Your task to perform on an android device: Show me popular videos on Youtube Image 0: 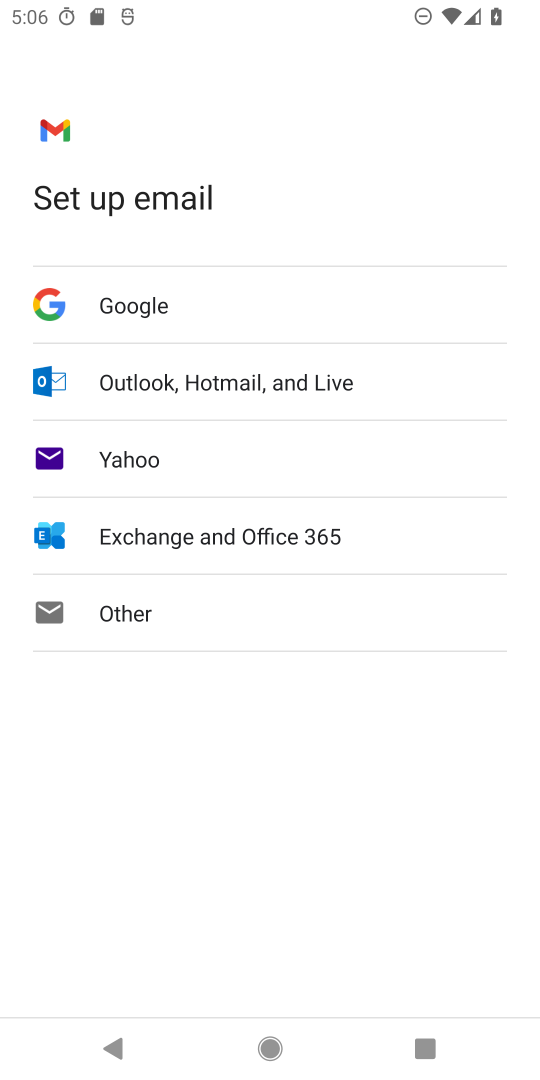
Step 0: press home button
Your task to perform on an android device: Show me popular videos on Youtube Image 1: 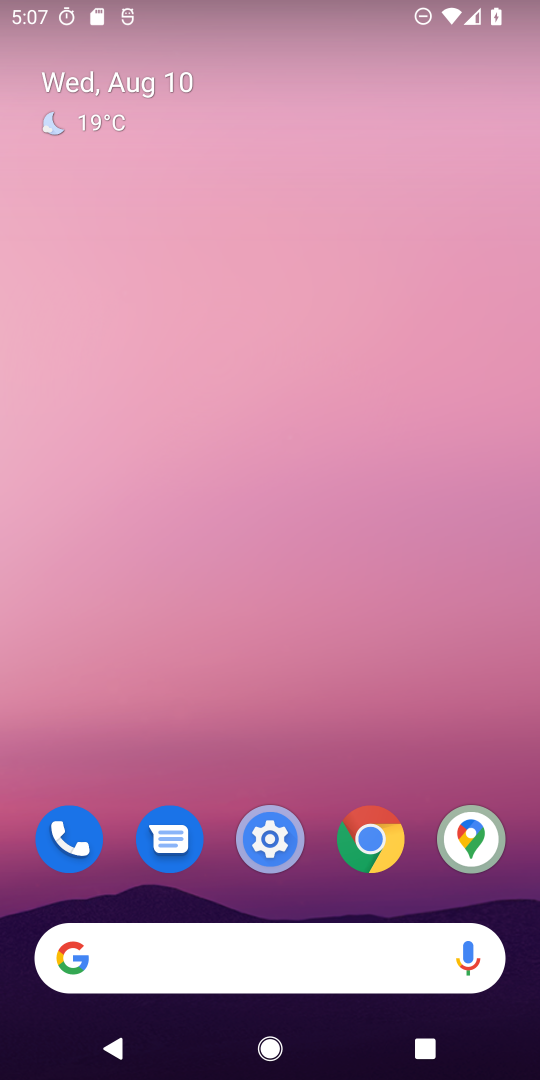
Step 1: drag from (30, 1017) to (212, 608)
Your task to perform on an android device: Show me popular videos on Youtube Image 2: 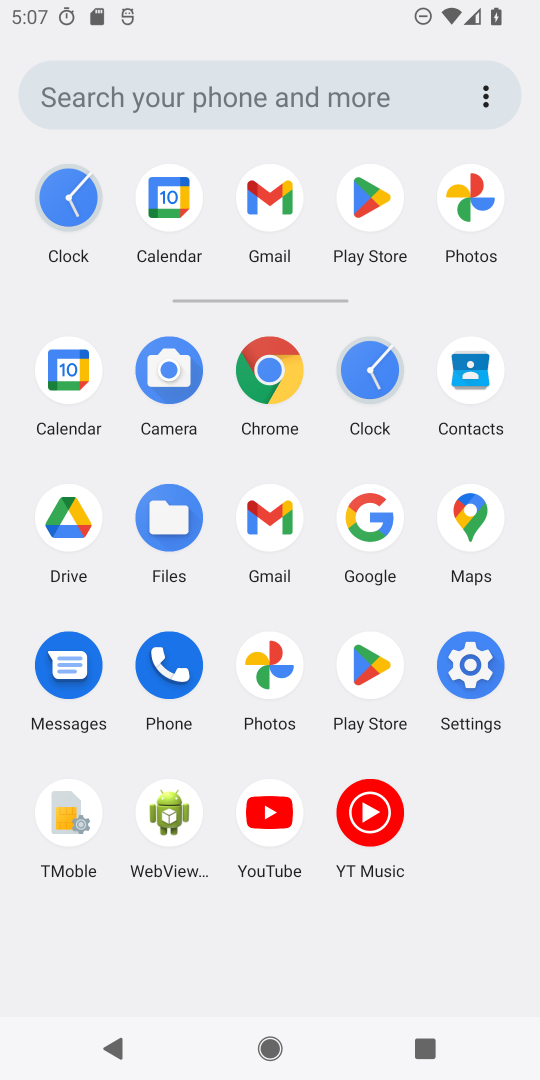
Step 2: click (276, 821)
Your task to perform on an android device: Show me popular videos on Youtube Image 3: 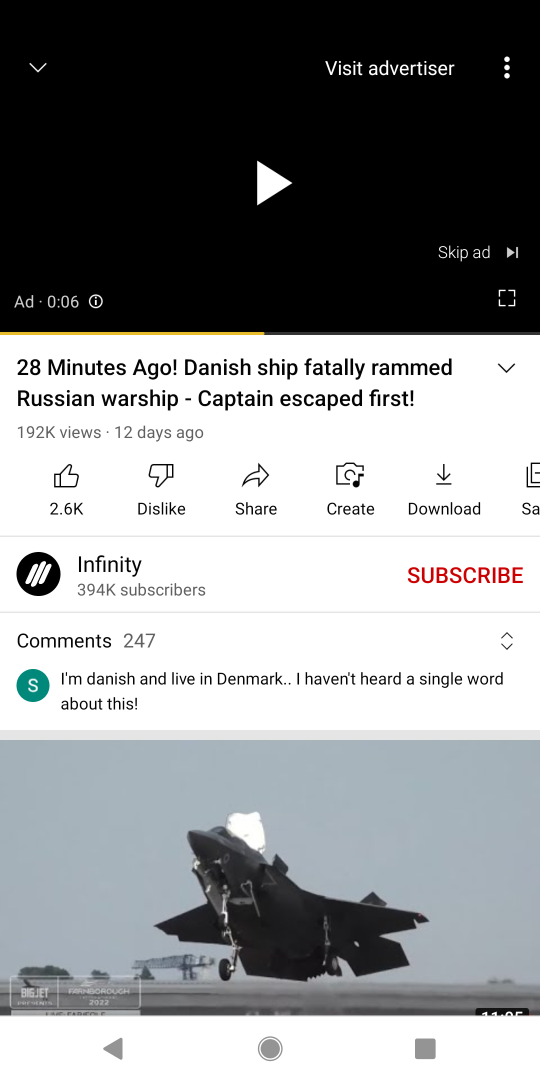
Step 3: press back button
Your task to perform on an android device: Show me popular videos on Youtube Image 4: 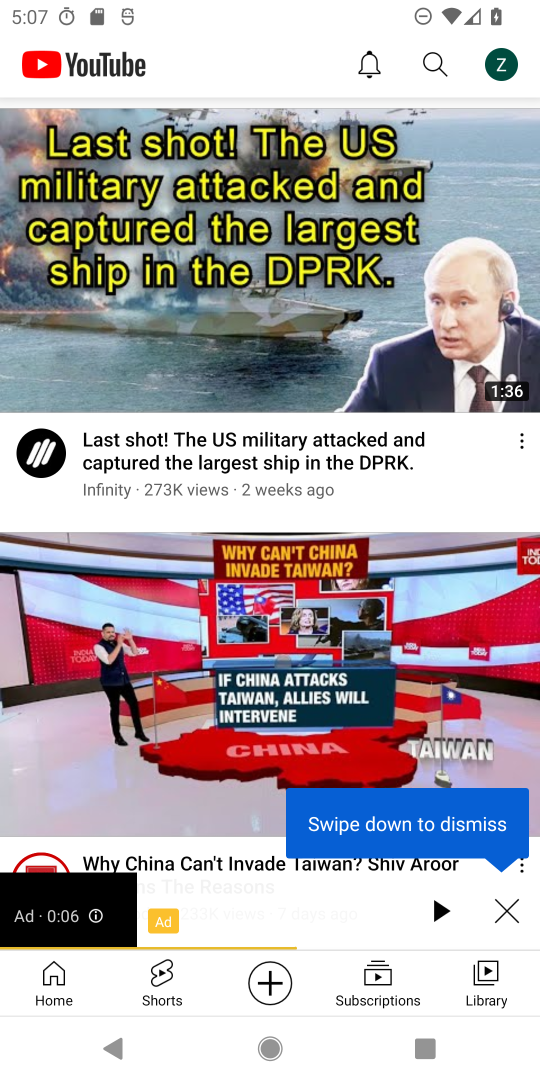
Step 4: click (431, 58)
Your task to perform on an android device: Show me popular videos on Youtube Image 5: 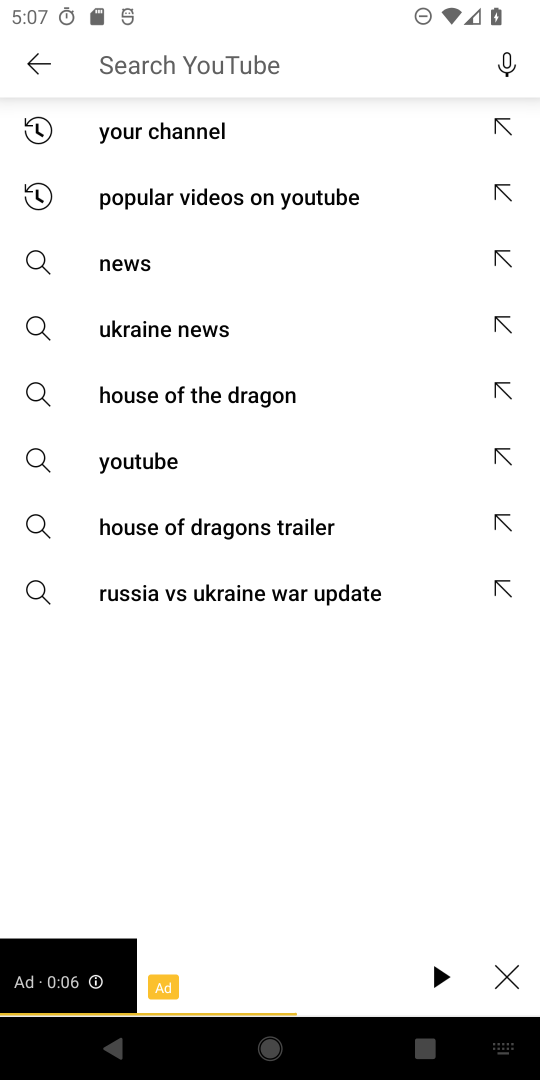
Step 5: click (232, 185)
Your task to perform on an android device: Show me popular videos on Youtube Image 6: 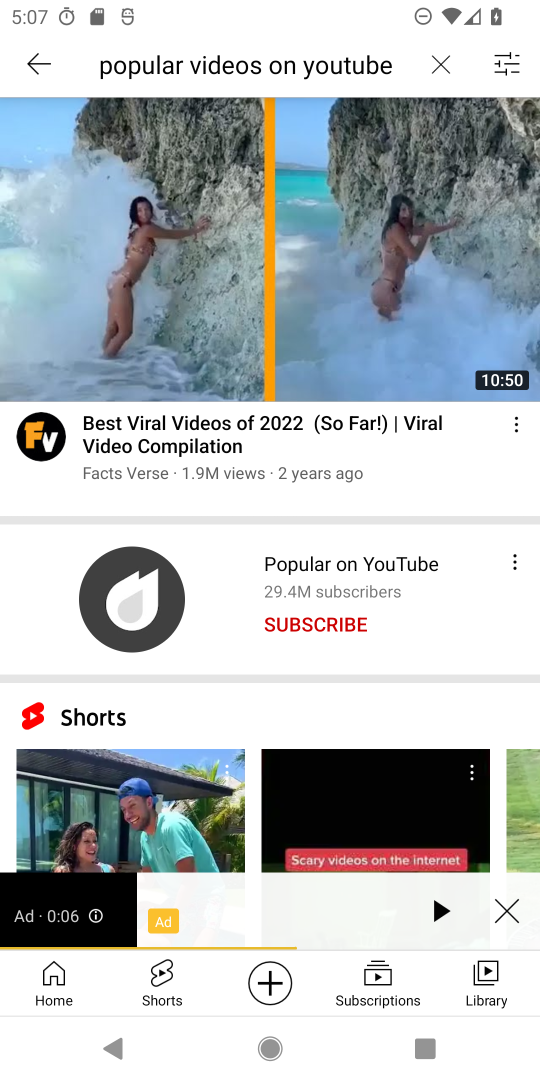
Step 6: task complete